Your task to perform on an android device: Find coffee shops on Maps Image 0: 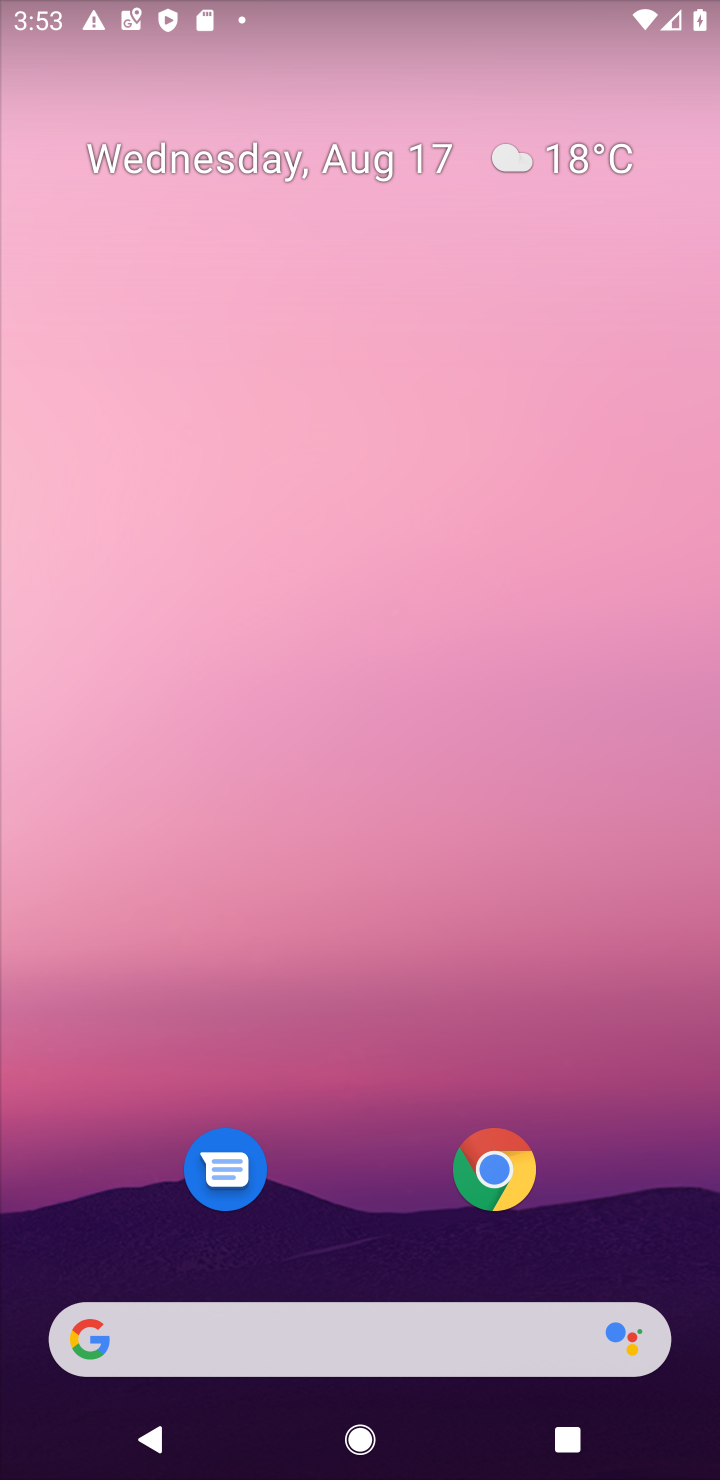
Step 0: drag from (374, 1075) to (334, 143)
Your task to perform on an android device: Find coffee shops on Maps Image 1: 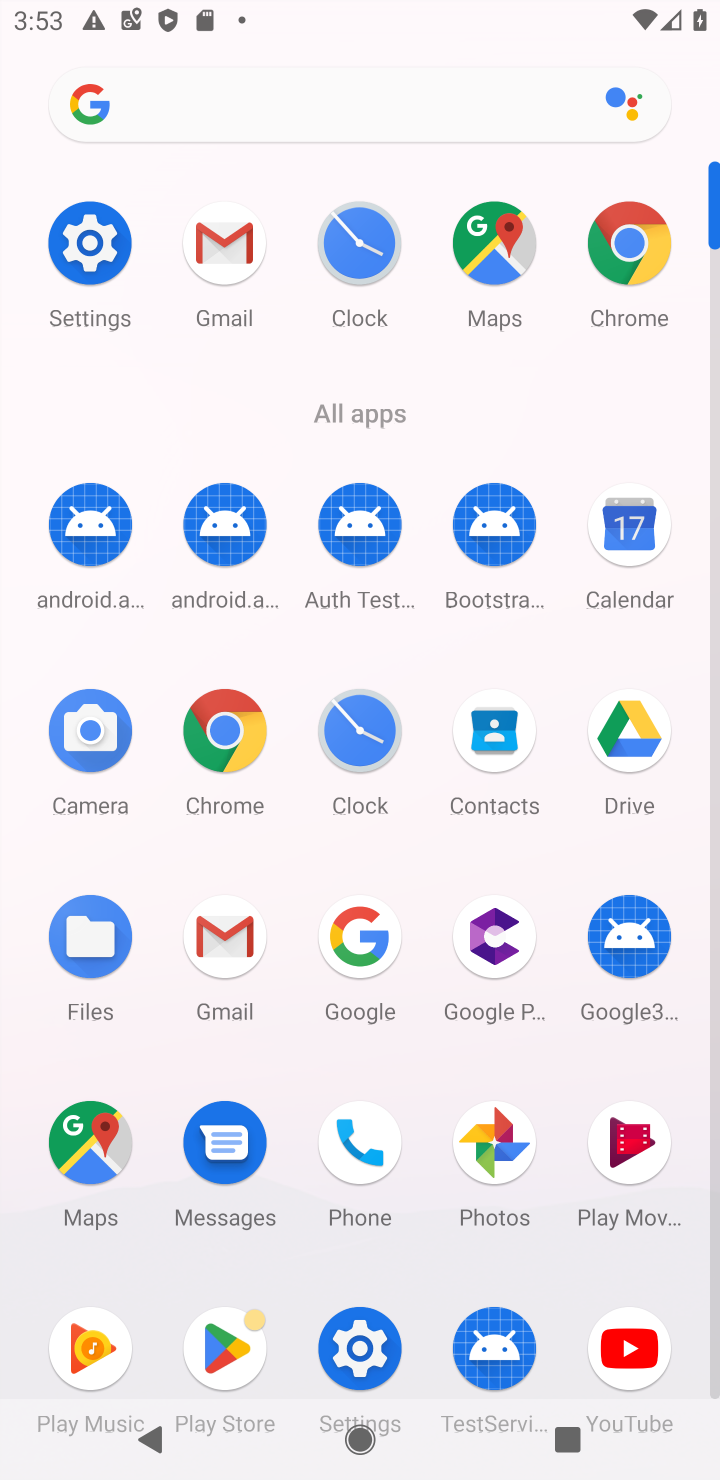
Step 1: click (489, 256)
Your task to perform on an android device: Find coffee shops on Maps Image 2: 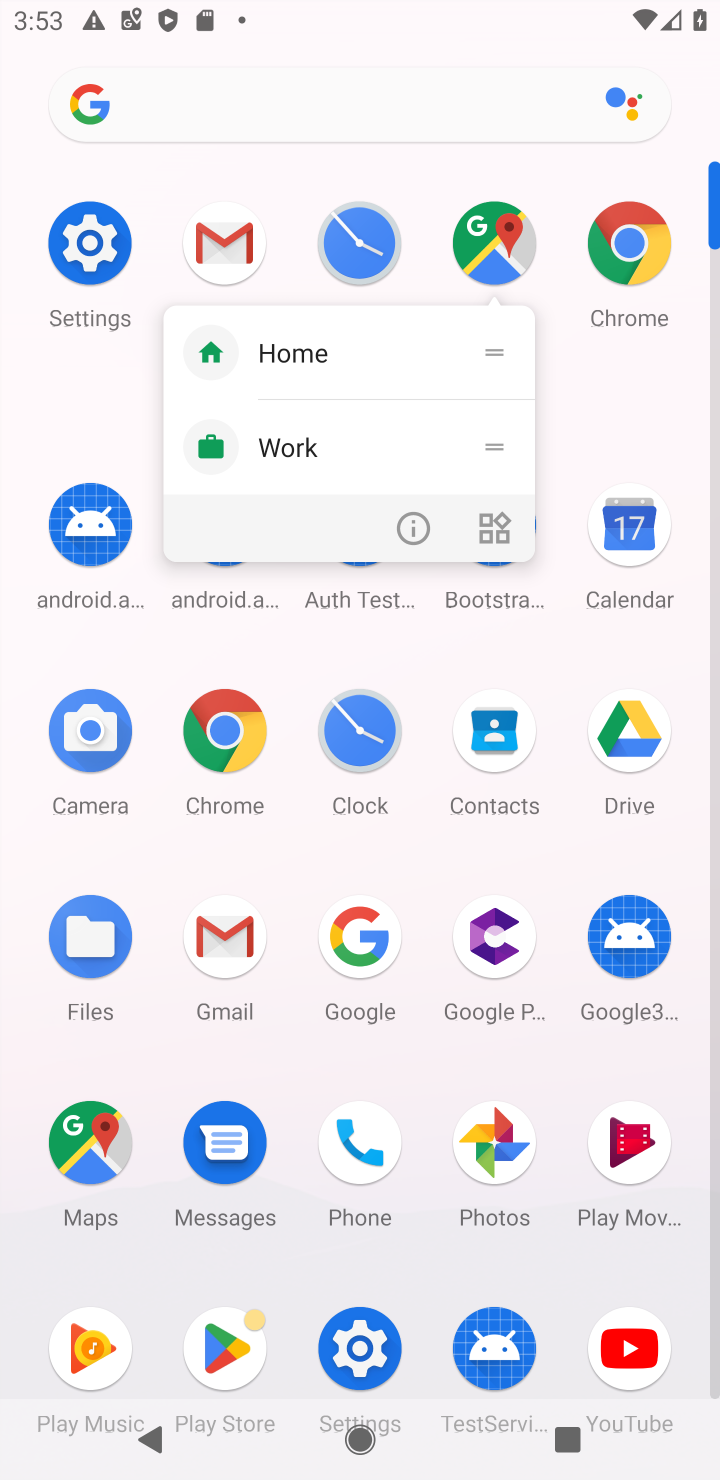
Step 2: click (487, 238)
Your task to perform on an android device: Find coffee shops on Maps Image 3: 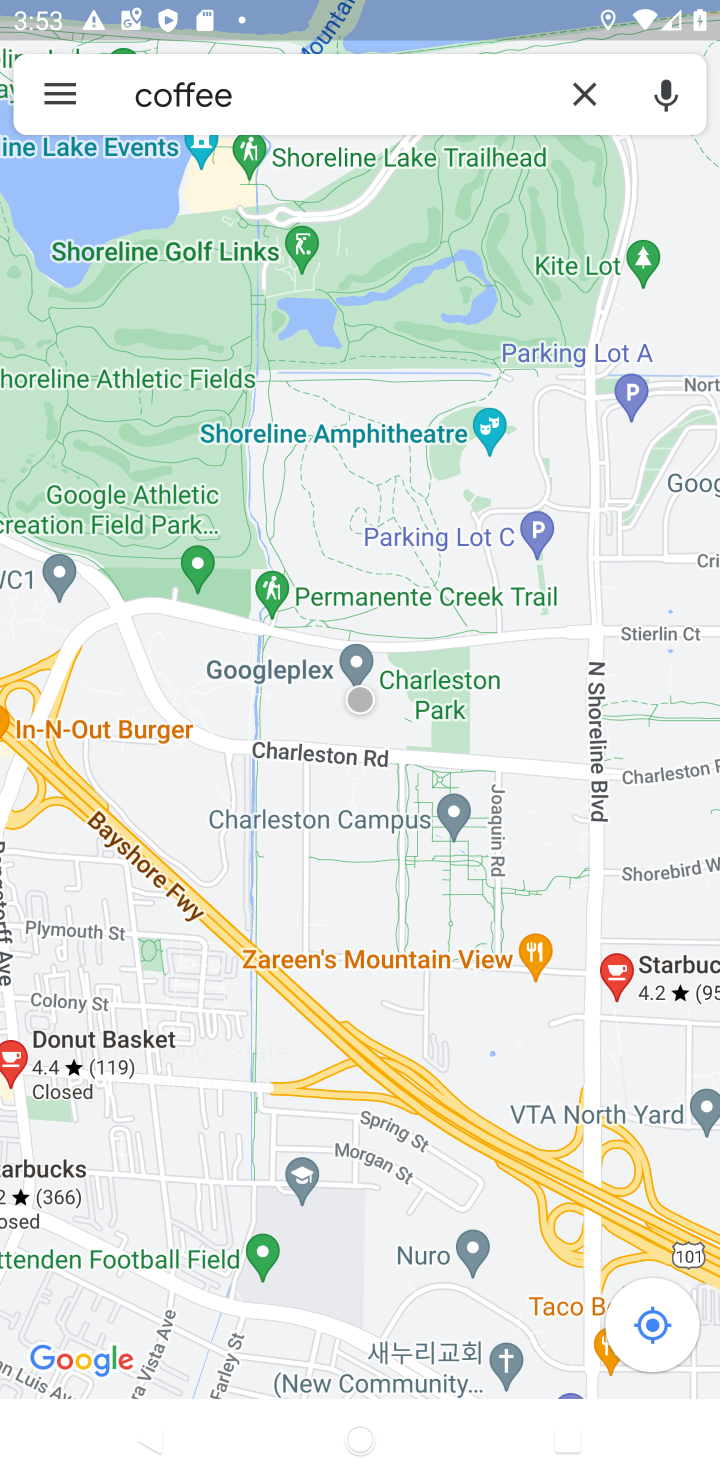
Step 3: click (303, 82)
Your task to perform on an android device: Find coffee shops on Maps Image 4: 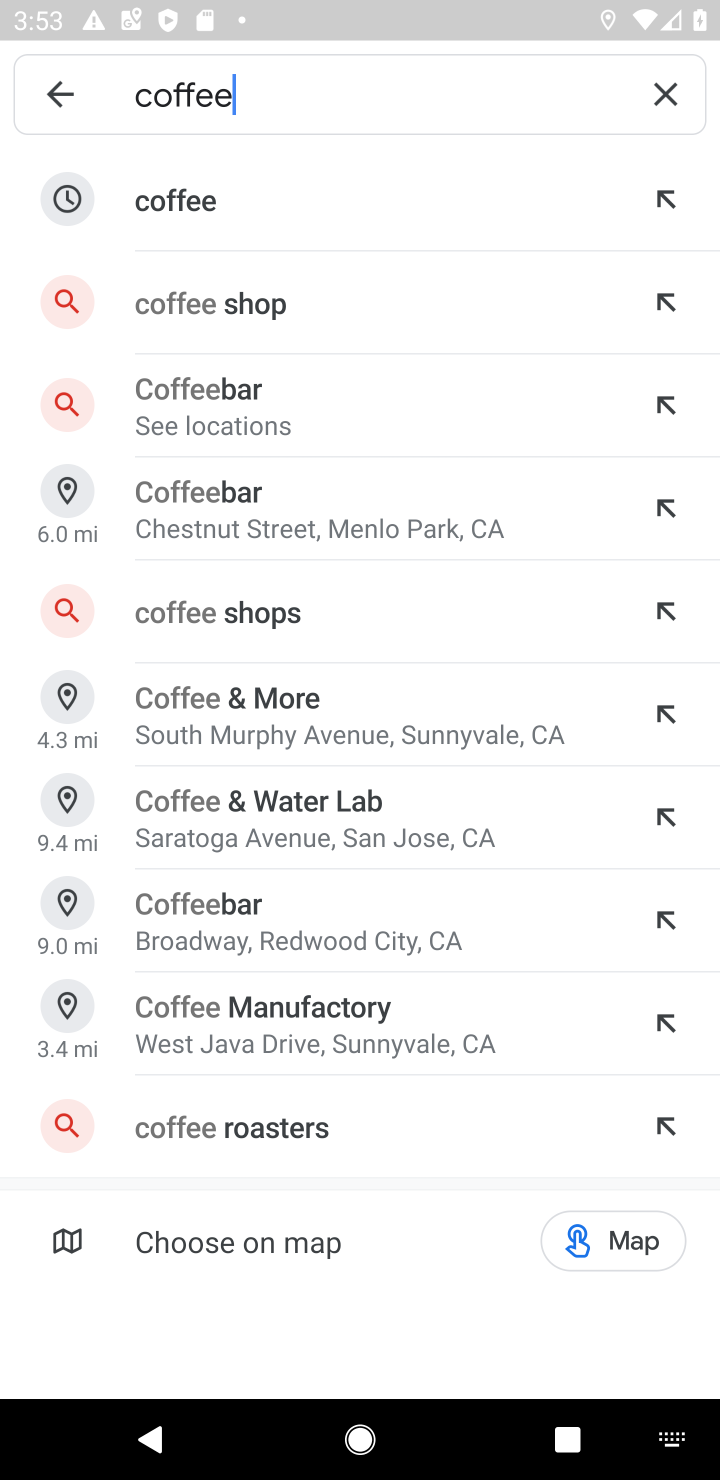
Step 4: click (185, 212)
Your task to perform on an android device: Find coffee shops on Maps Image 5: 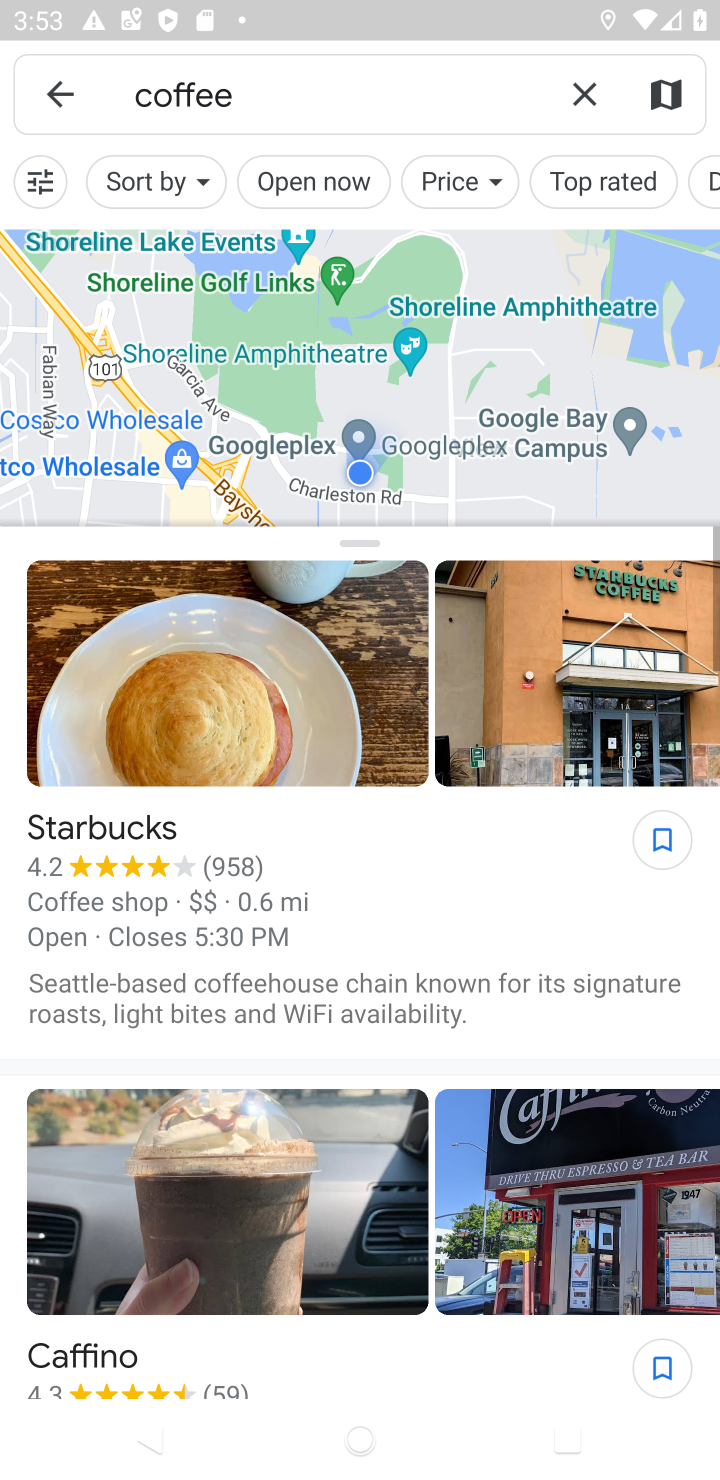
Step 5: task complete